Your task to perform on an android device: open sync settings in chrome Image 0: 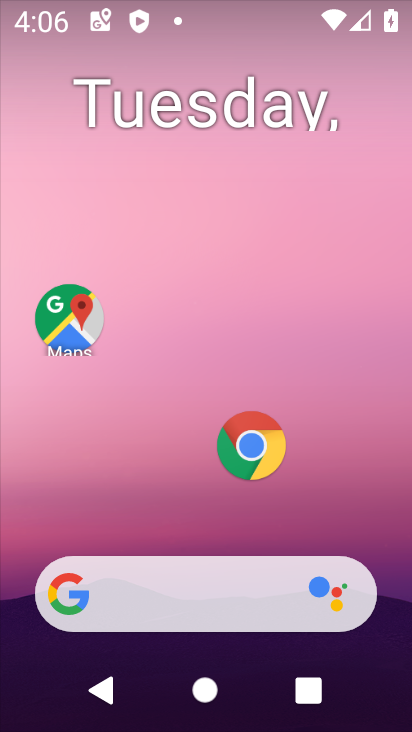
Step 0: click (261, 435)
Your task to perform on an android device: open sync settings in chrome Image 1: 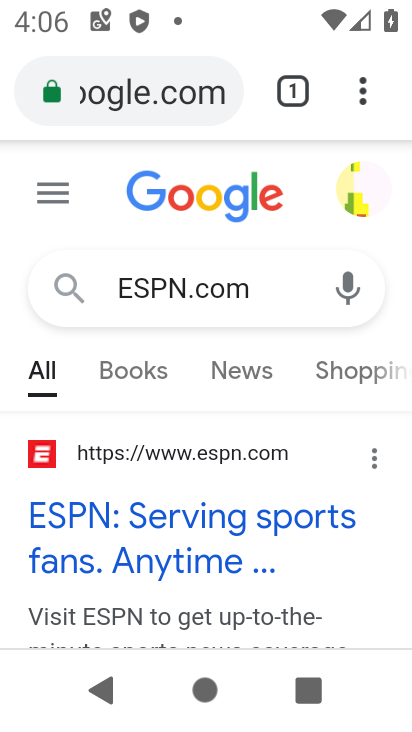
Step 1: click (362, 102)
Your task to perform on an android device: open sync settings in chrome Image 2: 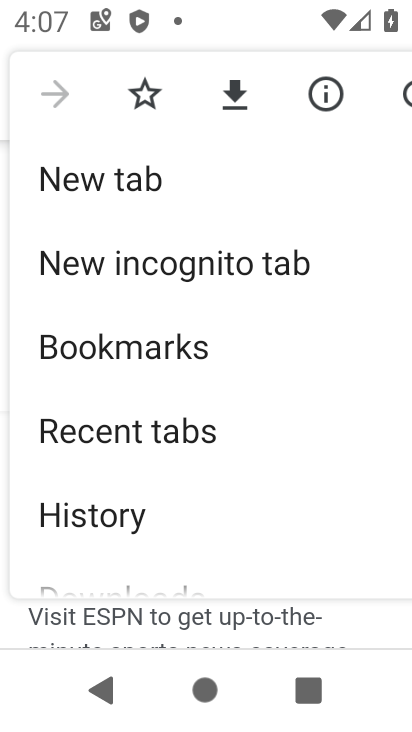
Step 2: drag from (125, 512) to (172, 39)
Your task to perform on an android device: open sync settings in chrome Image 3: 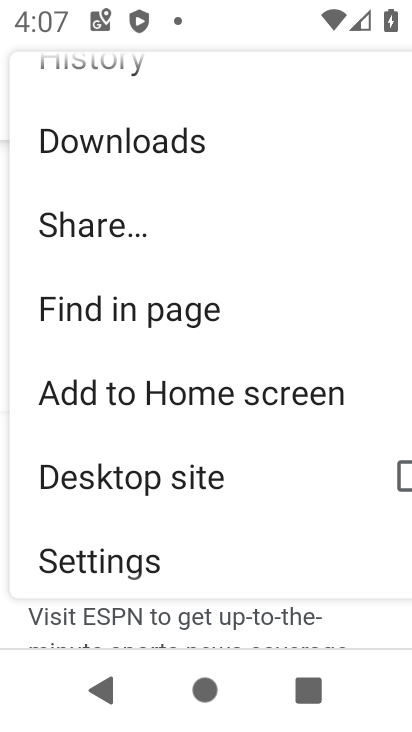
Step 3: drag from (157, 503) to (179, 211)
Your task to perform on an android device: open sync settings in chrome Image 4: 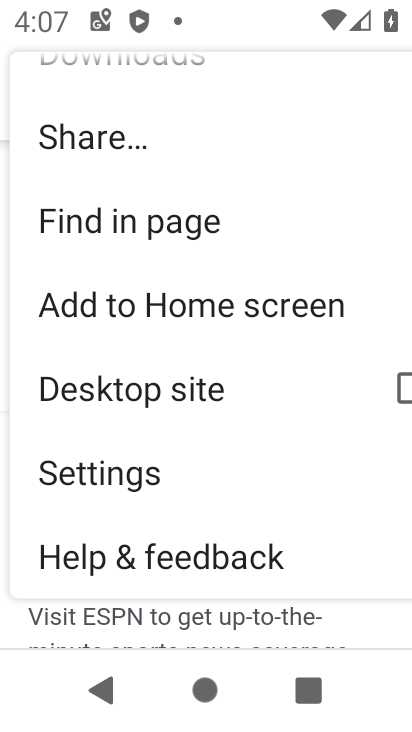
Step 4: click (99, 476)
Your task to perform on an android device: open sync settings in chrome Image 5: 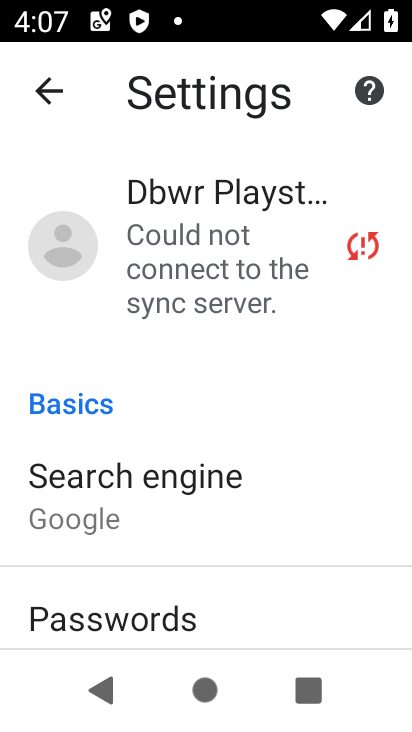
Step 5: click (204, 281)
Your task to perform on an android device: open sync settings in chrome Image 6: 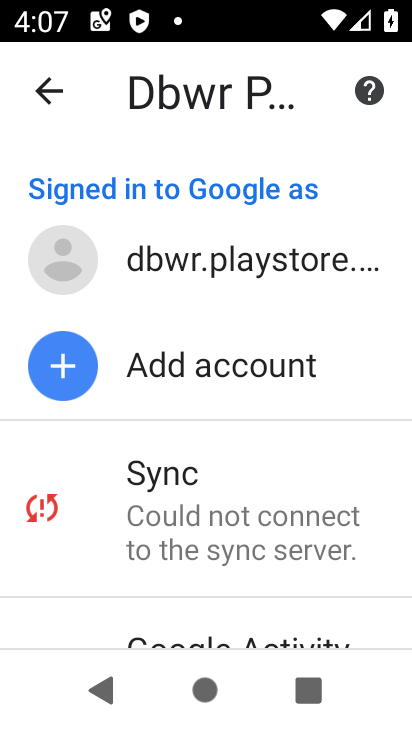
Step 6: click (203, 529)
Your task to perform on an android device: open sync settings in chrome Image 7: 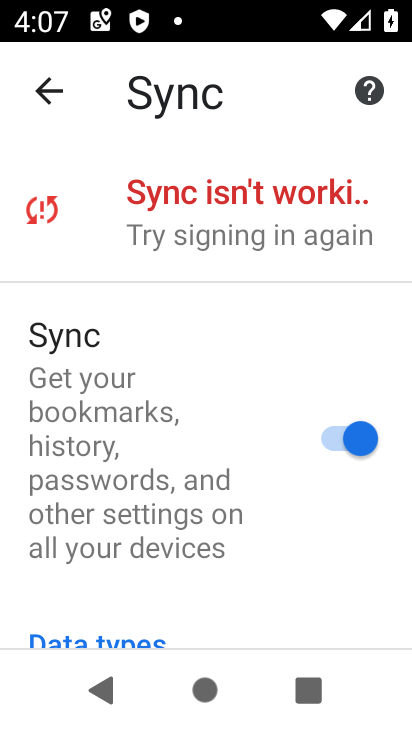
Step 7: task complete